Your task to perform on an android device: toggle notification dots Image 0: 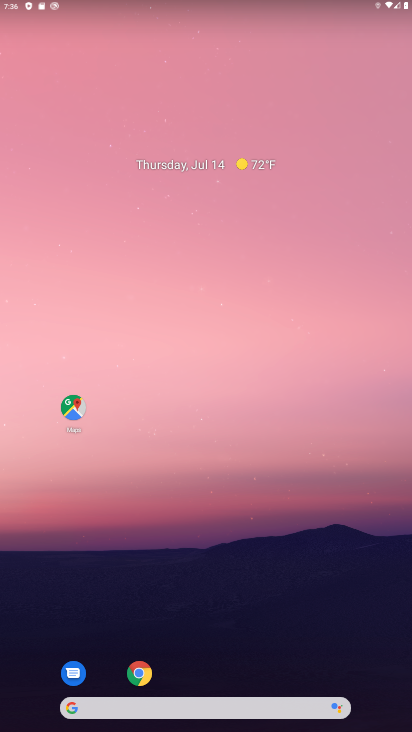
Step 0: drag from (215, 689) to (325, 320)
Your task to perform on an android device: toggle notification dots Image 1: 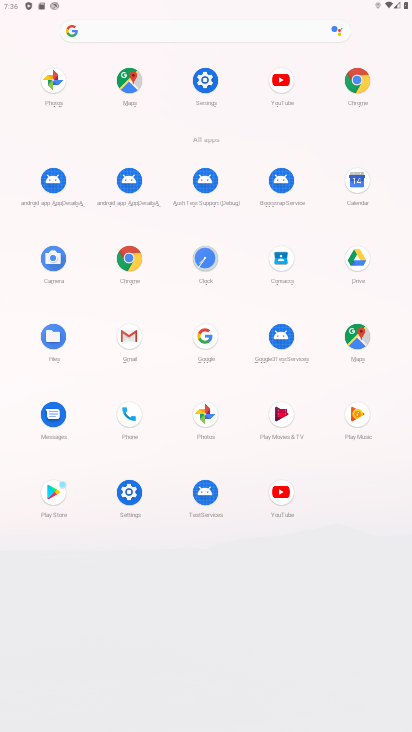
Step 1: click (210, 70)
Your task to perform on an android device: toggle notification dots Image 2: 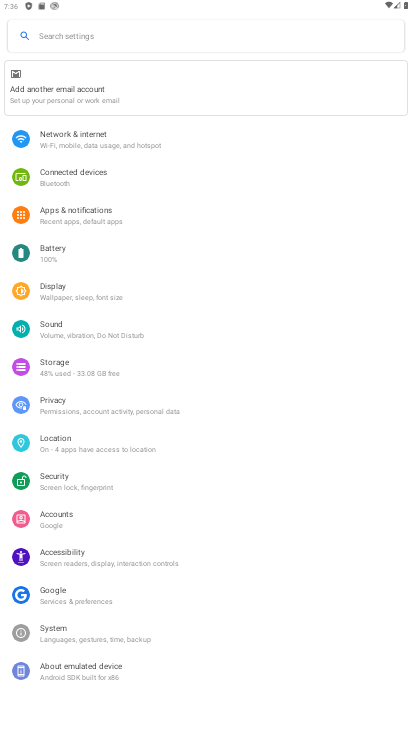
Step 2: click (92, 212)
Your task to perform on an android device: toggle notification dots Image 3: 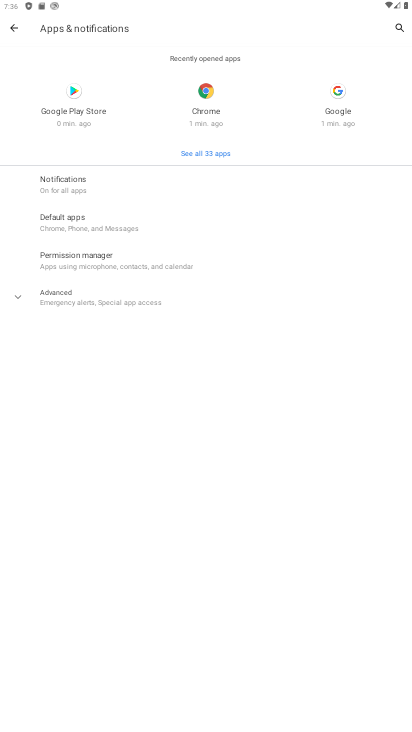
Step 3: click (89, 179)
Your task to perform on an android device: toggle notification dots Image 4: 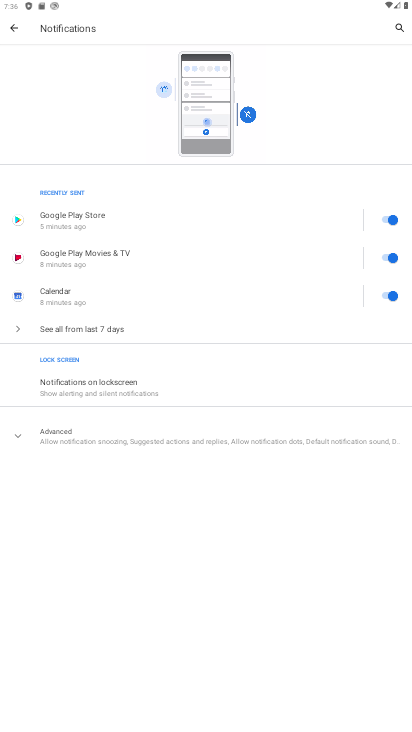
Step 4: click (85, 440)
Your task to perform on an android device: toggle notification dots Image 5: 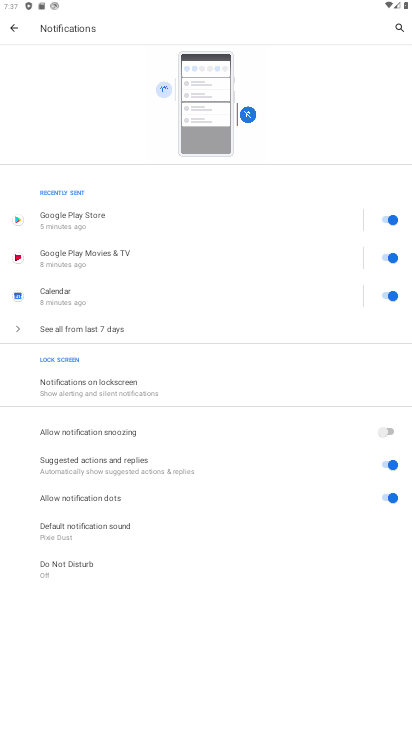
Step 5: click (382, 497)
Your task to perform on an android device: toggle notification dots Image 6: 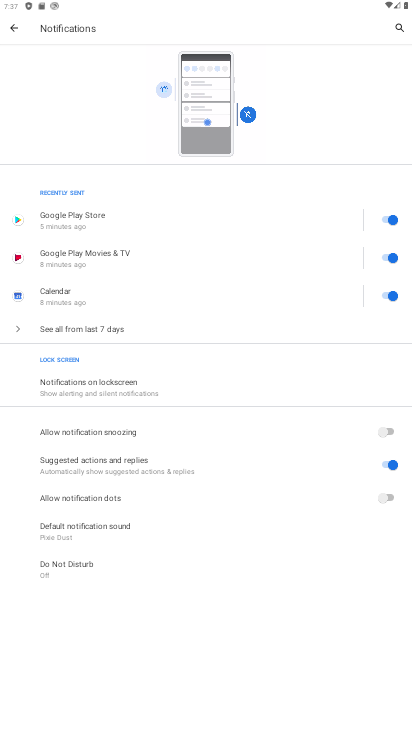
Step 6: task complete